Your task to perform on an android device: turn pop-ups off in chrome Image 0: 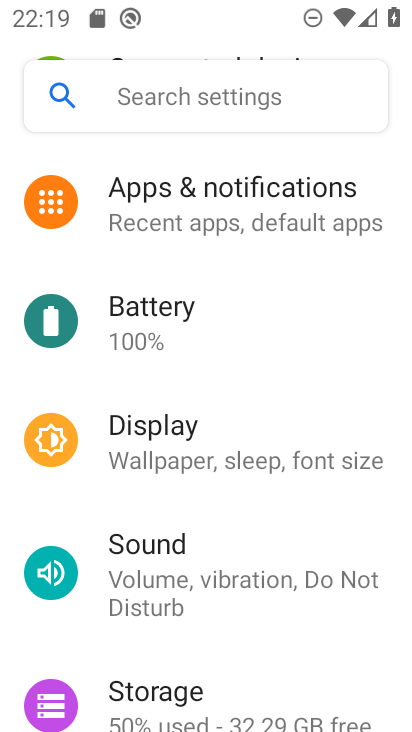
Step 0: press home button
Your task to perform on an android device: turn pop-ups off in chrome Image 1: 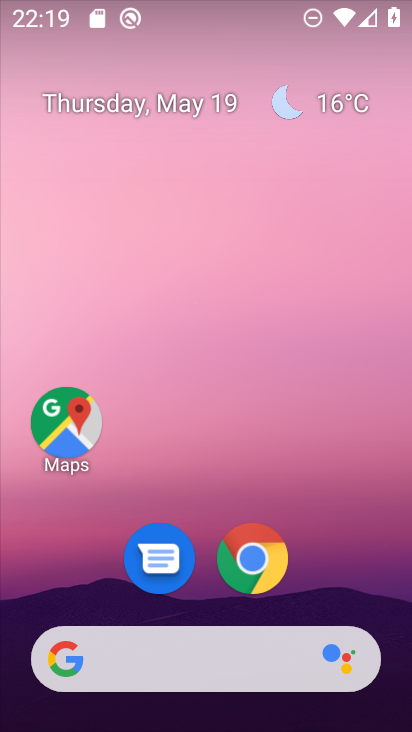
Step 1: click (251, 548)
Your task to perform on an android device: turn pop-ups off in chrome Image 2: 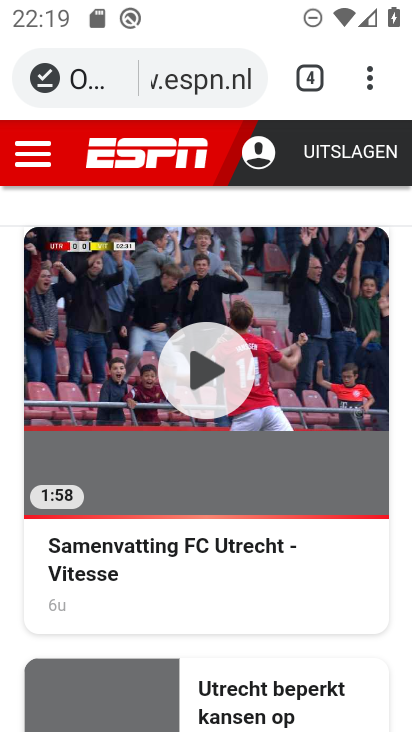
Step 2: click (369, 86)
Your task to perform on an android device: turn pop-ups off in chrome Image 3: 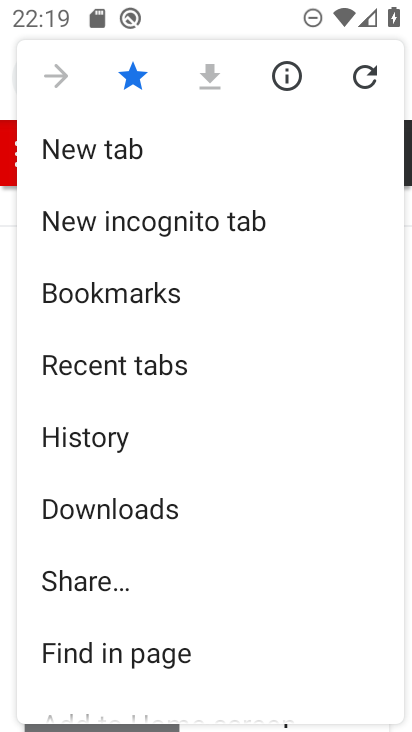
Step 3: drag from (122, 677) to (136, 278)
Your task to perform on an android device: turn pop-ups off in chrome Image 4: 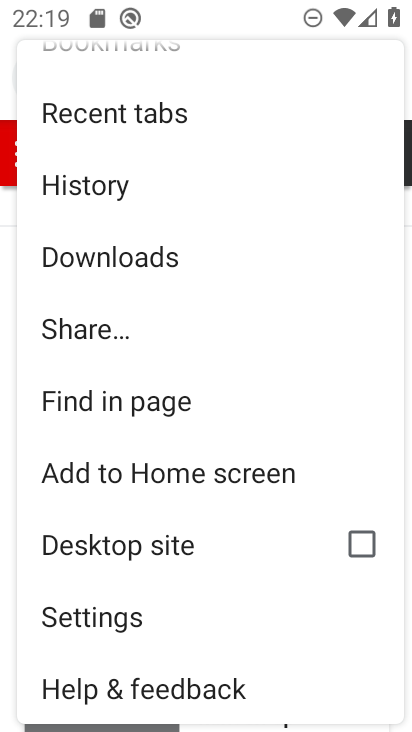
Step 4: click (99, 612)
Your task to perform on an android device: turn pop-ups off in chrome Image 5: 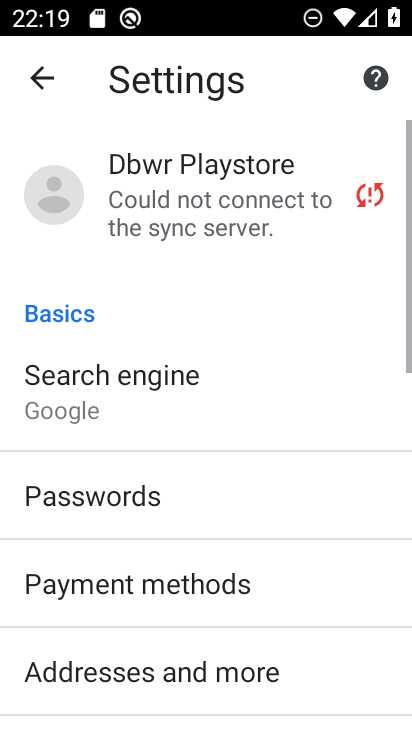
Step 5: drag from (160, 655) to (166, 245)
Your task to perform on an android device: turn pop-ups off in chrome Image 6: 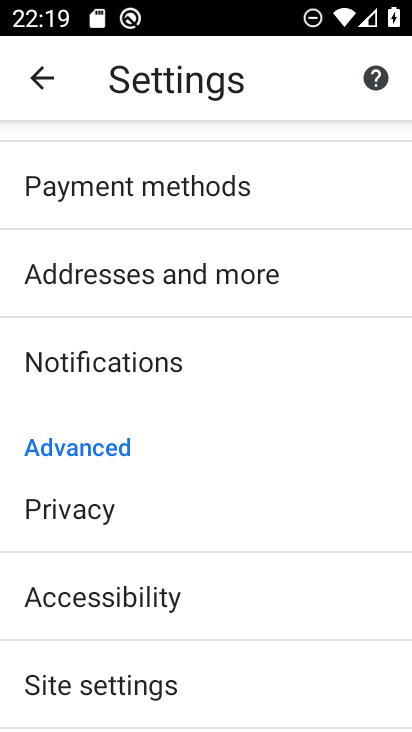
Step 6: drag from (154, 678) to (183, 337)
Your task to perform on an android device: turn pop-ups off in chrome Image 7: 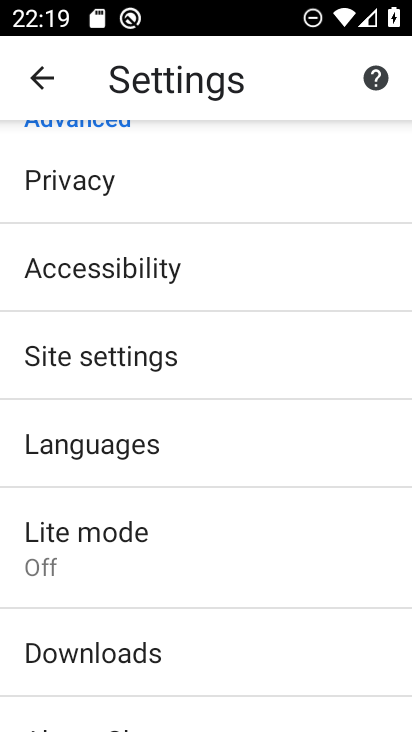
Step 7: click (114, 348)
Your task to perform on an android device: turn pop-ups off in chrome Image 8: 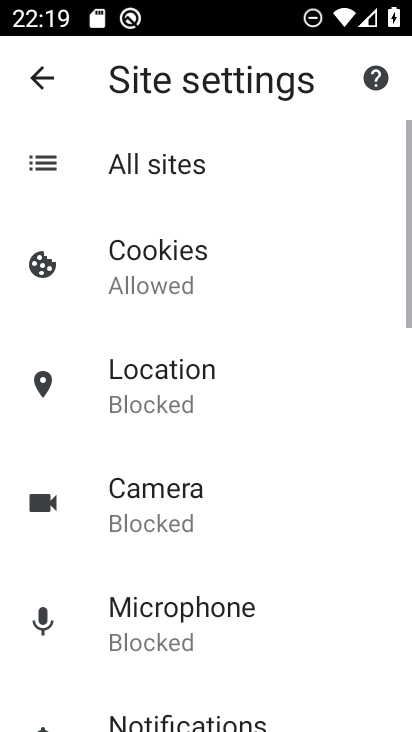
Step 8: drag from (159, 691) to (162, 271)
Your task to perform on an android device: turn pop-ups off in chrome Image 9: 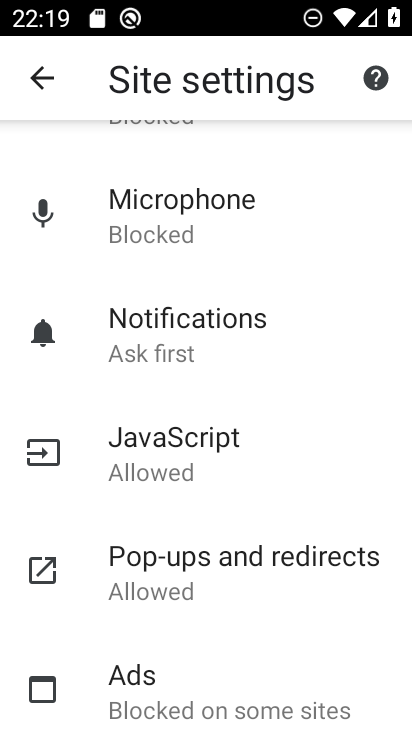
Step 9: drag from (152, 656) to (156, 321)
Your task to perform on an android device: turn pop-ups off in chrome Image 10: 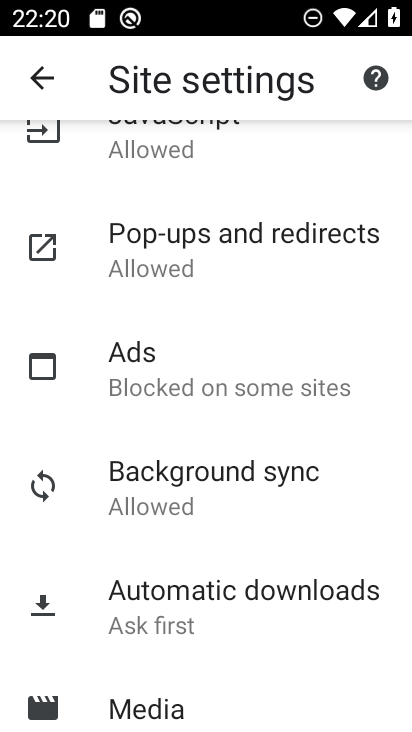
Step 10: drag from (163, 655) to (174, 330)
Your task to perform on an android device: turn pop-ups off in chrome Image 11: 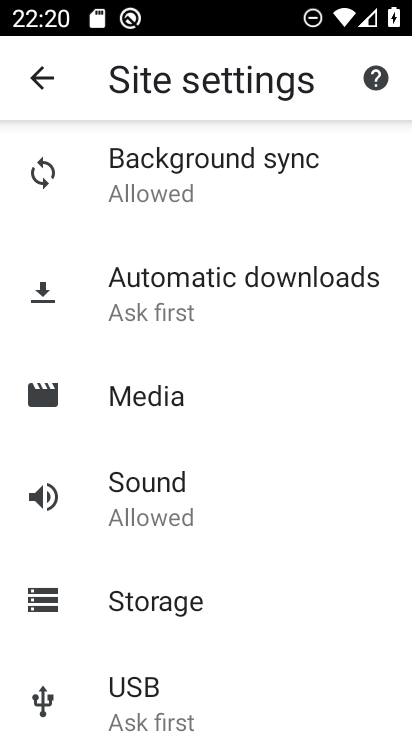
Step 11: drag from (182, 685) to (189, 282)
Your task to perform on an android device: turn pop-ups off in chrome Image 12: 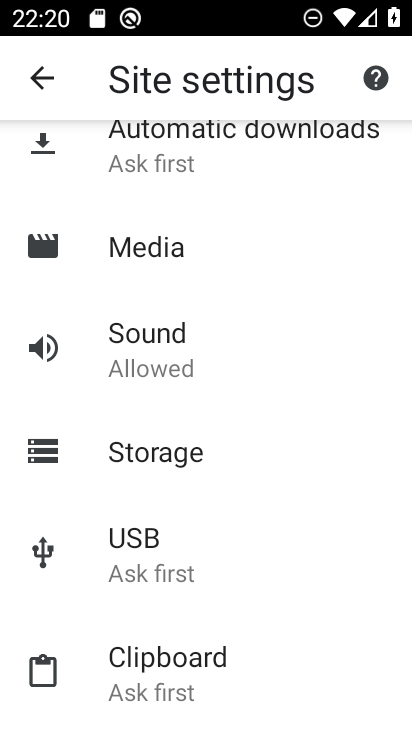
Step 12: drag from (265, 247) to (280, 585)
Your task to perform on an android device: turn pop-ups off in chrome Image 13: 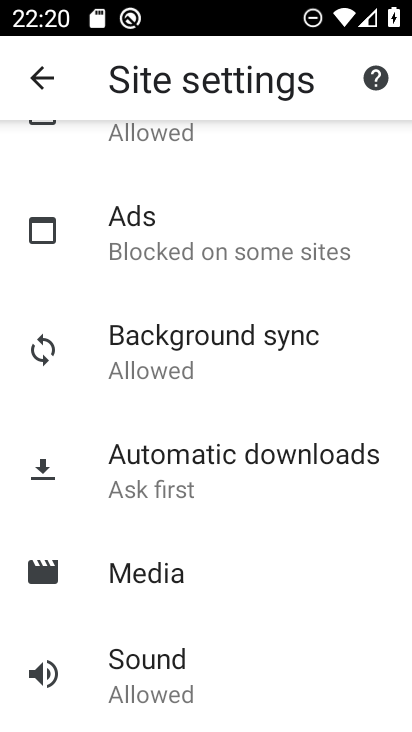
Step 13: drag from (251, 255) to (248, 601)
Your task to perform on an android device: turn pop-ups off in chrome Image 14: 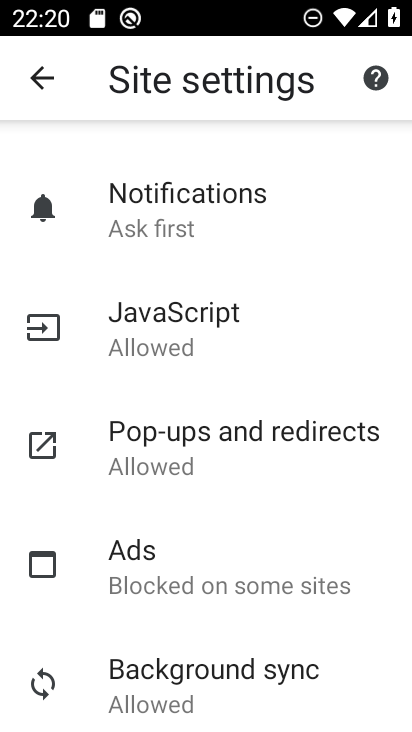
Step 14: click (255, 441)
Your task to perform on an android device: turn pop-ups off in chrome Image 15: 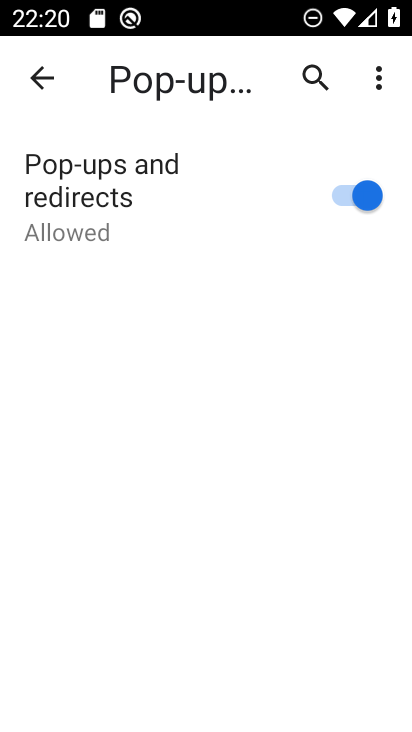
Step 15: click (338, 194)
Your task to perform on an android device: turn pop-ups off in chrome Image 16: 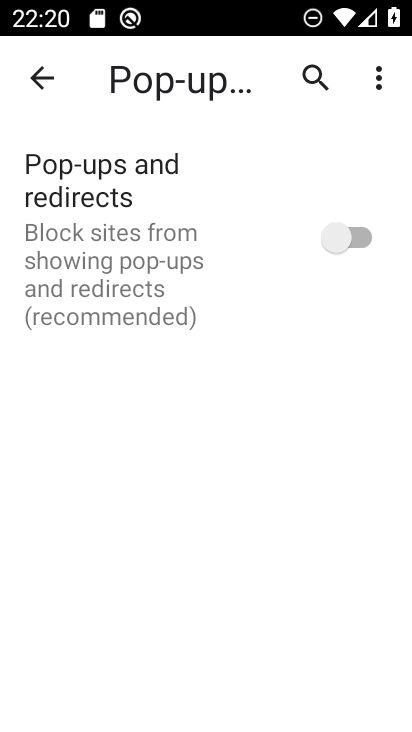
Step 16: task complete